Your task to perform on an android device: Go to notification settings Image 0: 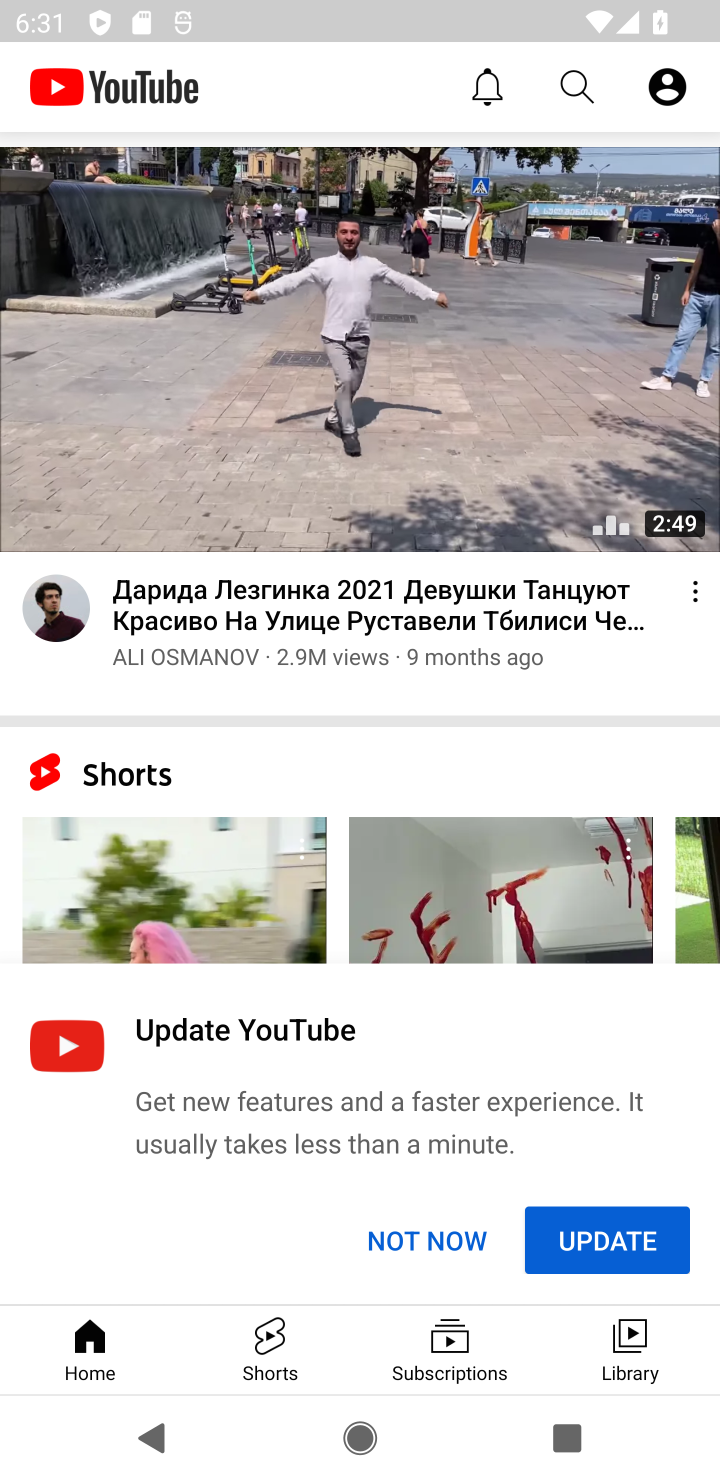
Step 0: press back button
Your task to perform on an android device: Go to notification settings Image 1: 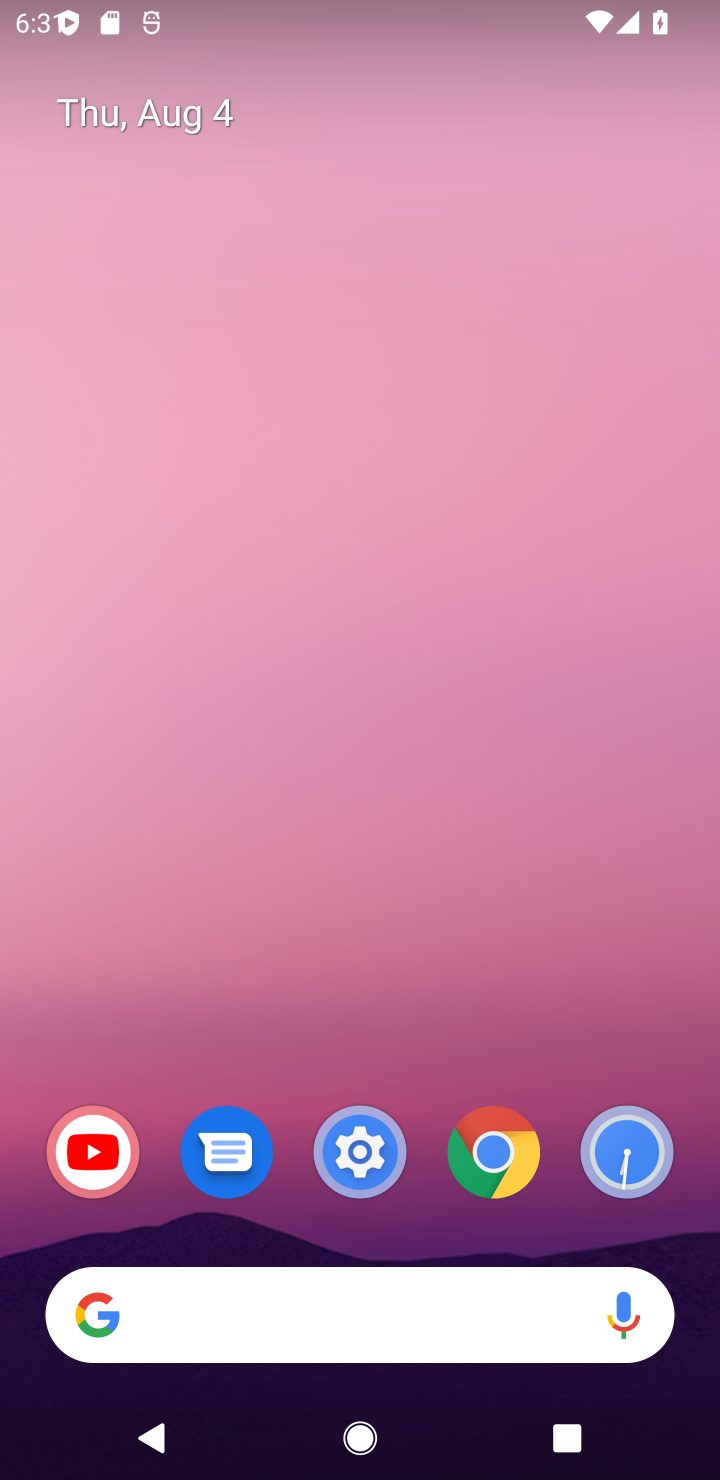
Step 1: click (353, 1146)
Your task to perform on an android device: Go to notification settings Image 2: 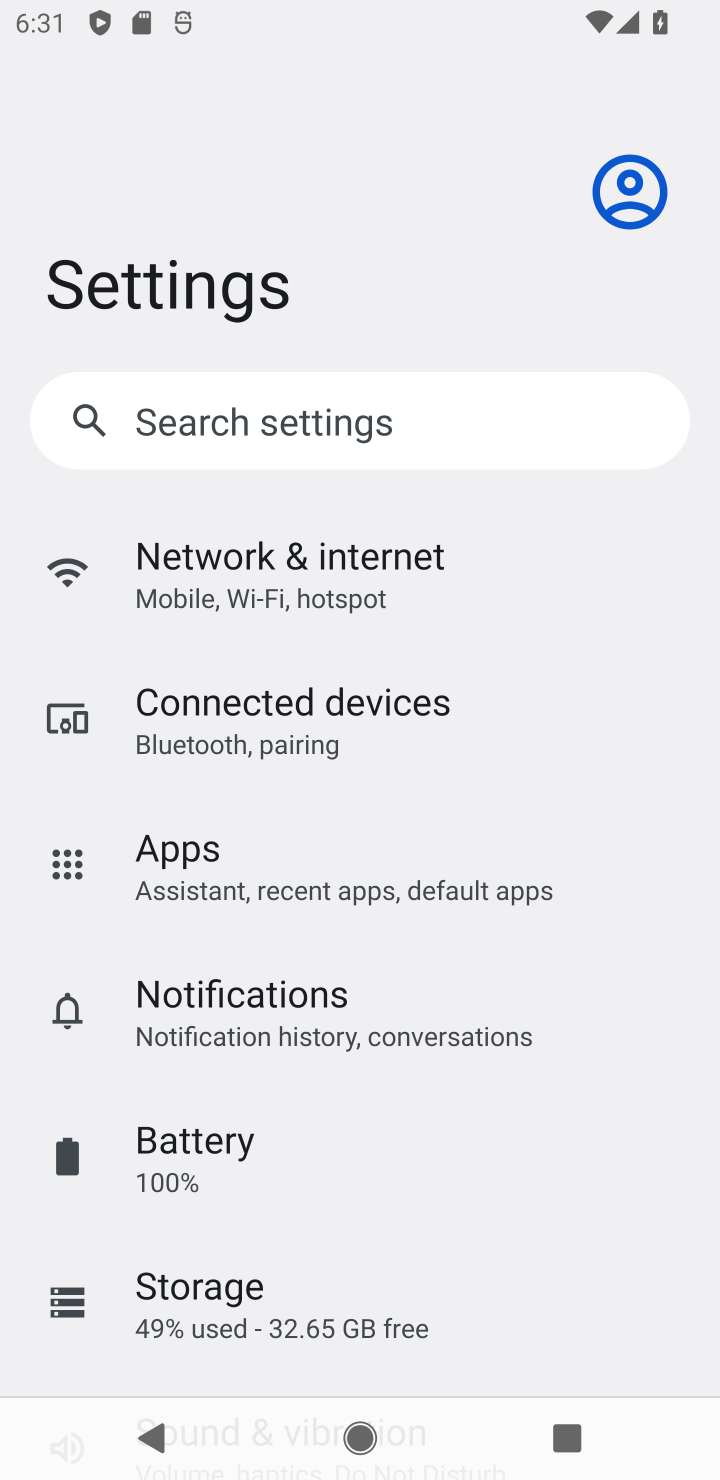
Step 2: click (280, 1038)
Your task to perform on an android device: Go to notification settings Image 3: 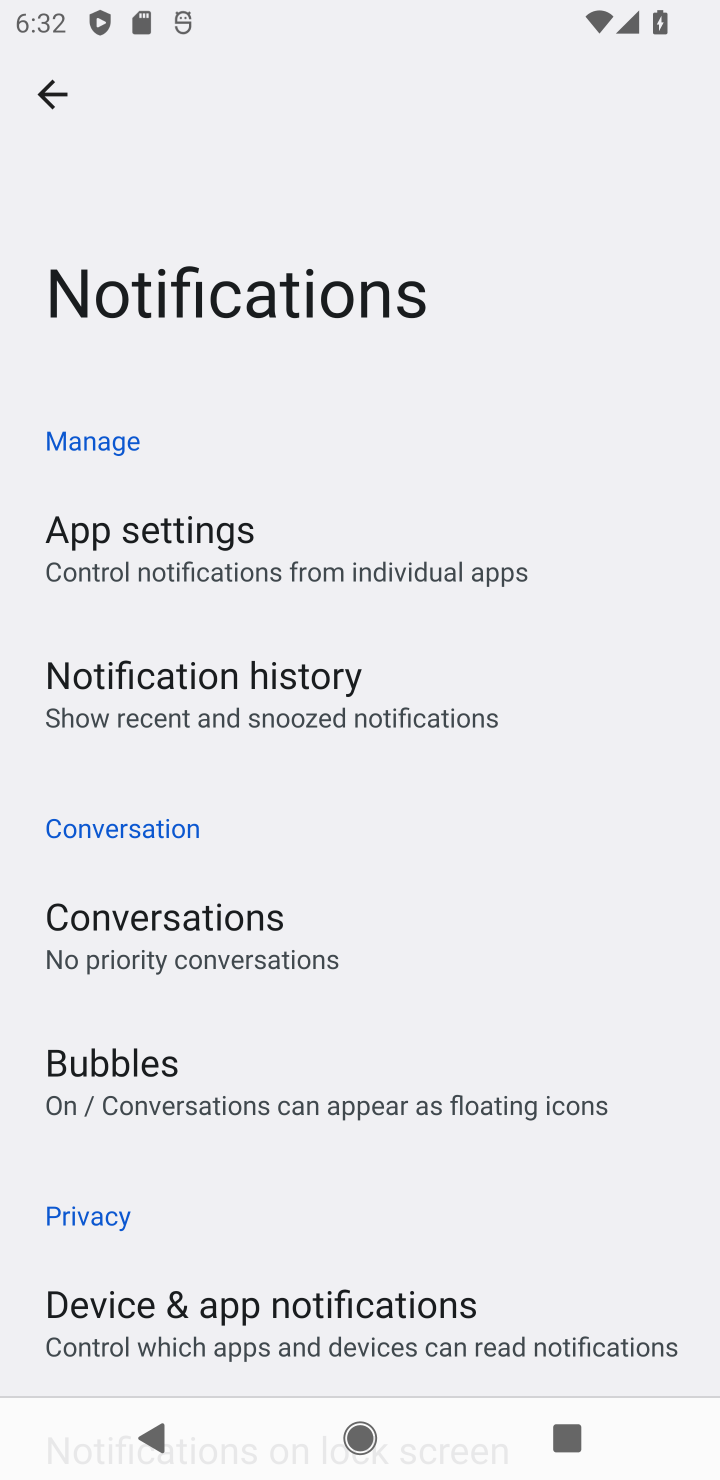
Step 3: task complete